Your task to perform on an android device: Open Google Maps and go to "Timeline" Image 0: 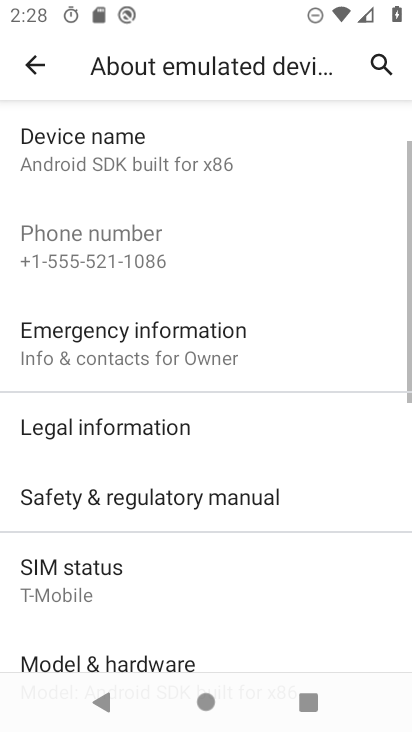
Step 0: press home button
Your task to perform on an android device: Open Google Maps and go to "Timeline" Image 1: 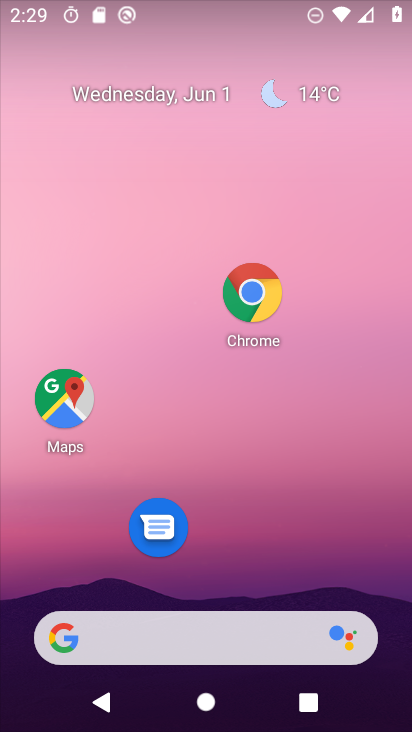
Step 1: drag from (285, 522) to (347, 118)
Your task to perform on an android device: Open Google Maps and go to "Timeline" Image 2: 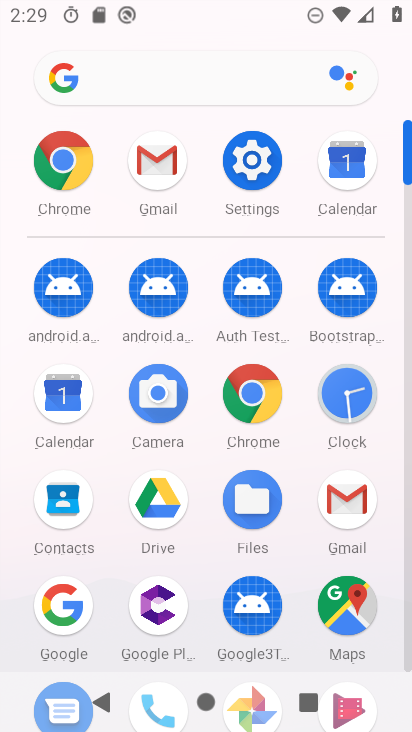
Step 2: click (345, 616)
Your task to perform on an android device: Open Google Maps and go to "Timeline" Image 3: 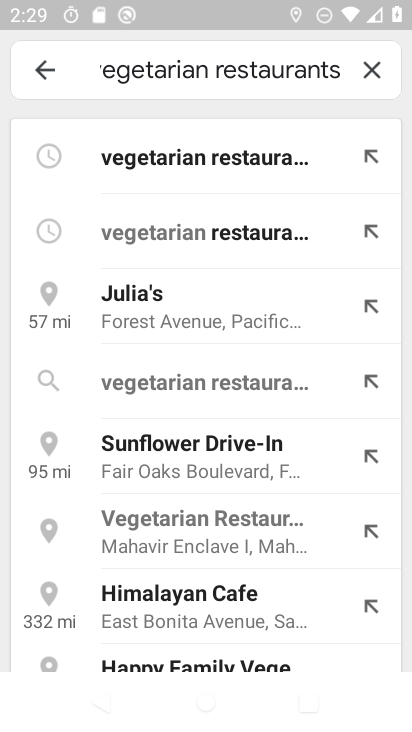
Step 3: click (42, 73)
Your task to perform on an android device: Open Google Maps and go to "Timeline" Image 4: 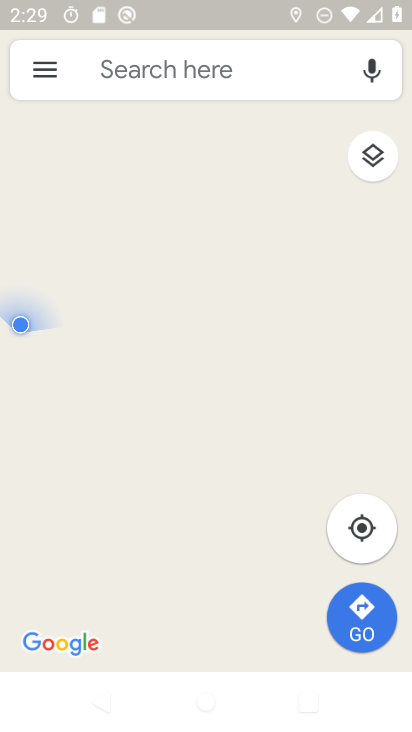
Step 4: click (47, 76)
Your task to perform on an android device: Open Google Maps and go to "Timeline" Image 5: 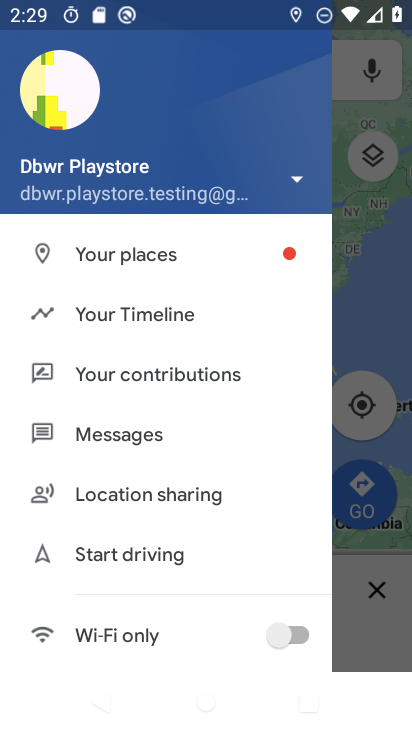
Step 5: click (155, 313)
Your task to perform on an android device: Open Google Maps and go to "Timeline" Image 6: 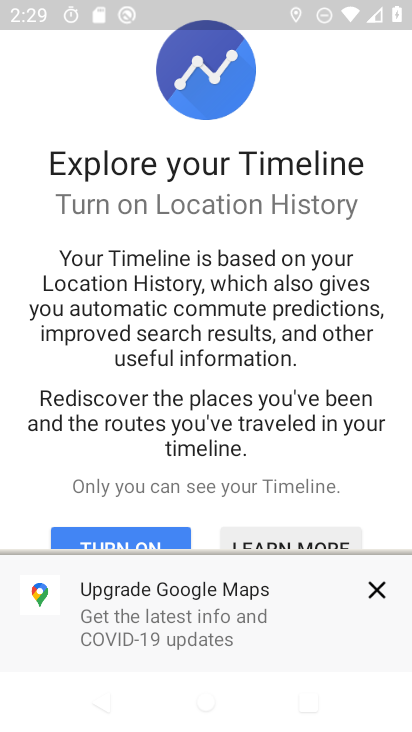
Step 6: drag from (219, 354) to (227, 262)
Your task to perform on an android device: Open Google Maps and go to "Timeline" Image 7: 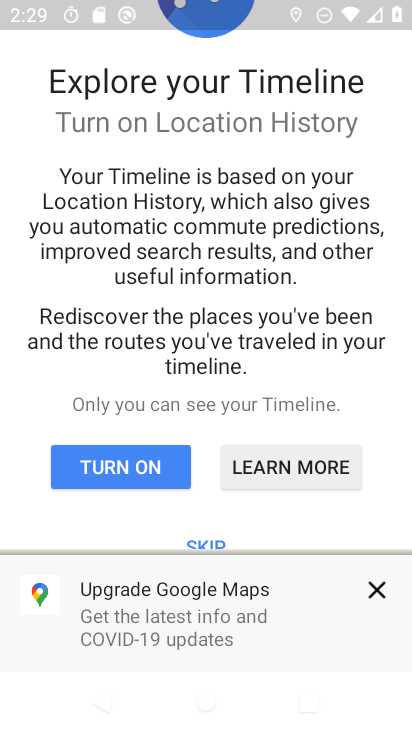
Step 7: click (384, 599)
Your task to perform on an android device: Open Google Maps and go to "Timeline" Image 8: 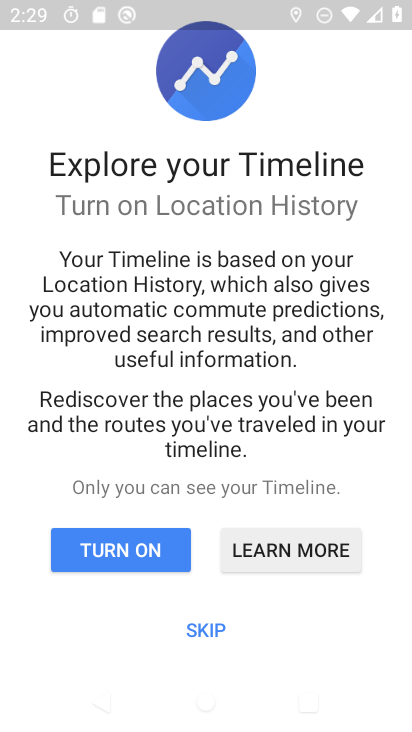
Step 8: drag from (219, 539) to (218, 287)
Your task to perform on an android device: Open Google Maps and go to "Timeline" Image 9: 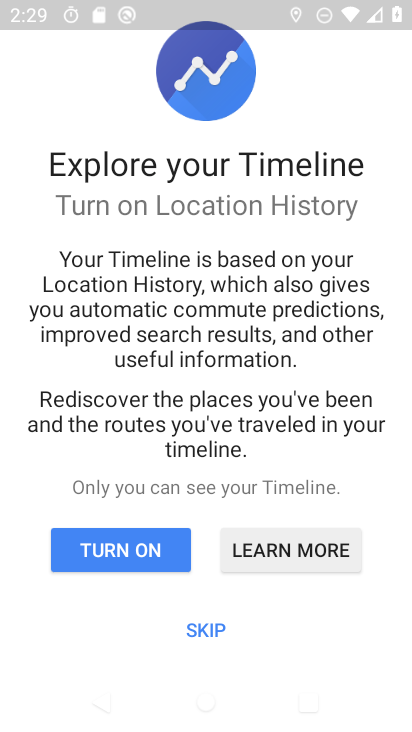
Step 9: click (209, 635)
Your task to perform on an android device: Open Google Maps and go to "Timeline" Image 10: 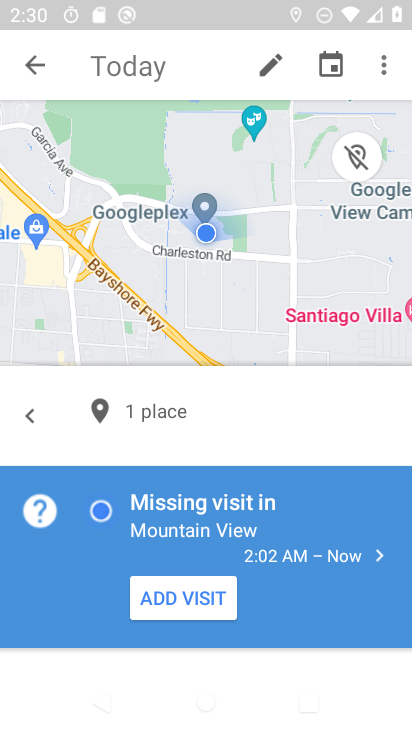
Step 10: task complete